Your task to perform on an android device: turn notification dots off Image 0: 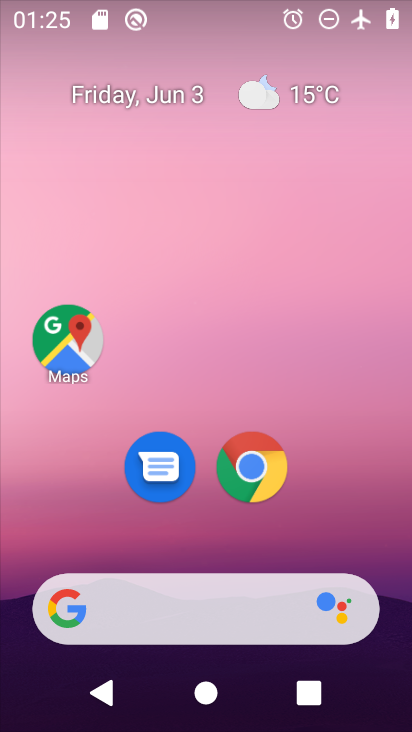
Step 0: drag from (399, 615) to (325, 85)
Your task to perform on an android device: turn notification dots off Image 1: 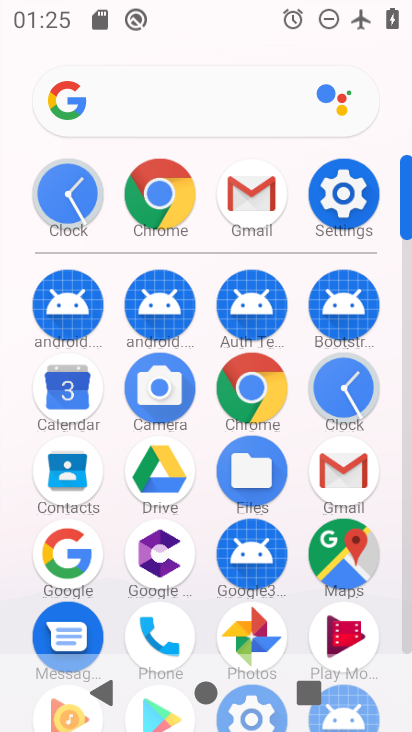
Step 1: click (408, 630)
Your task to perform on an android device: turn notification dots off Image 2: 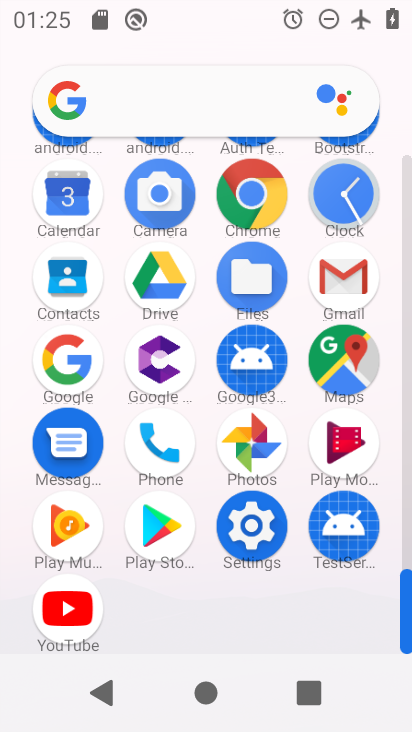
Step 2: click (250, 519)
Your task to perform on an android device: turn notification dots off Image 3: 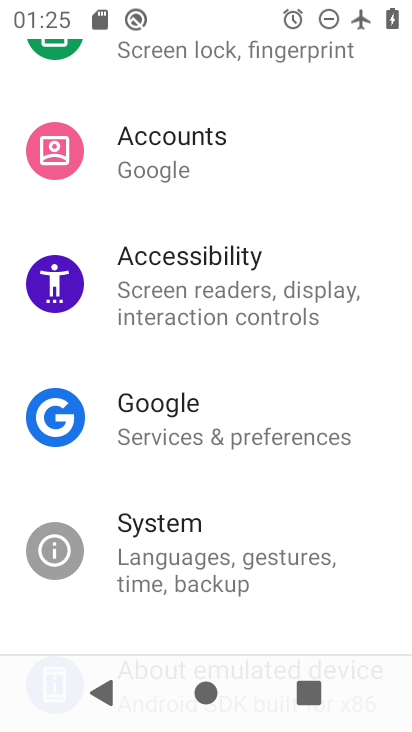
Step 3: drag from (362, 256) to (343, 493)
Your task to perform on an android device: turn notification dots off Image 4: 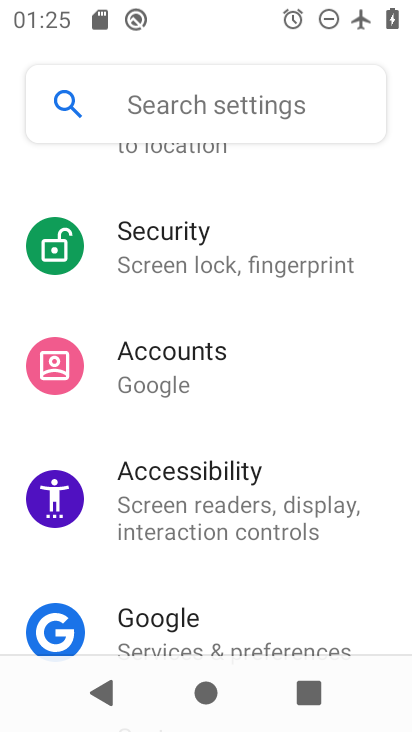
Step 4: drag from (364, 245) to (322, 510)
Your task to perform on an android device: turn notification dots off Image 5: 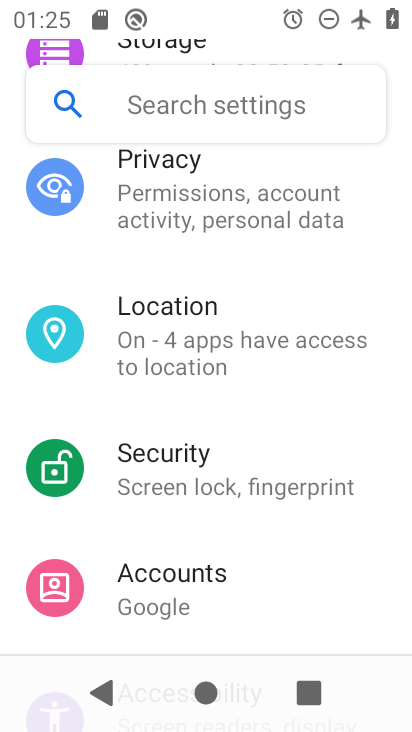
Step 5: drag from (361, 230) to (348, 521)
Your task to perform on an android device: turn notification dots off Image 6: 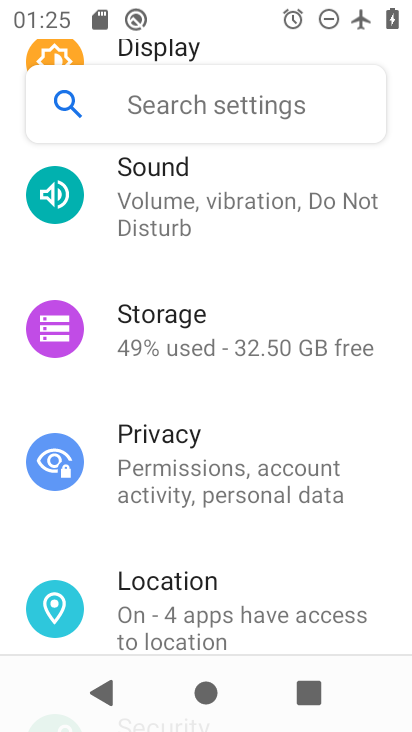
Step 6: drag from (358, 209) to (334, 392)
Your task to perform on an android device: turn notification dots off Image 7: 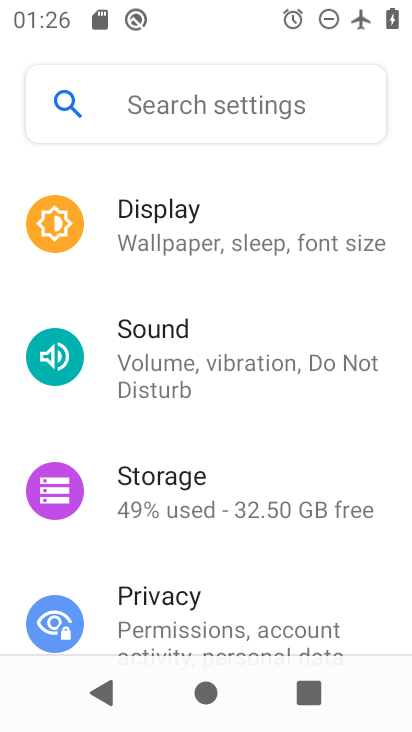
Step 7: drag from (325, 262) to (305, 541)
Your task to perform on an android device: turn notification dots off Image 8: 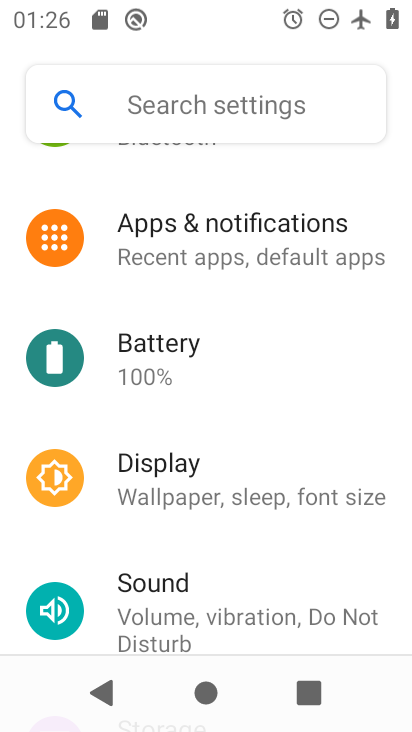
Step 8: click (145, 196)
Your task to perform on an android device: turn notification dots off Image 9: 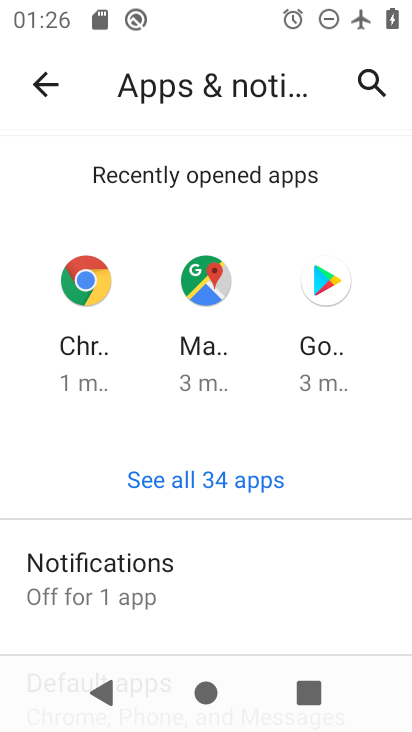
Step 9: drag from (227, 608) to (256, 173)
Your task to perform on an android device: turn notification dots off Image 10: 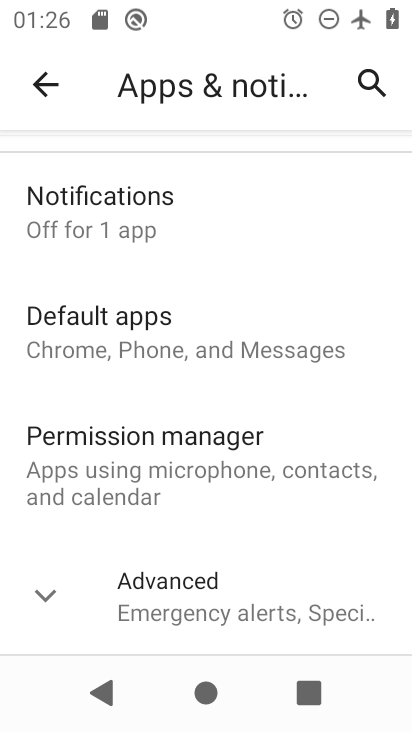
Step 10: click (92, 224)
Your task to perform on an android device: turn notification dots off Image 11: 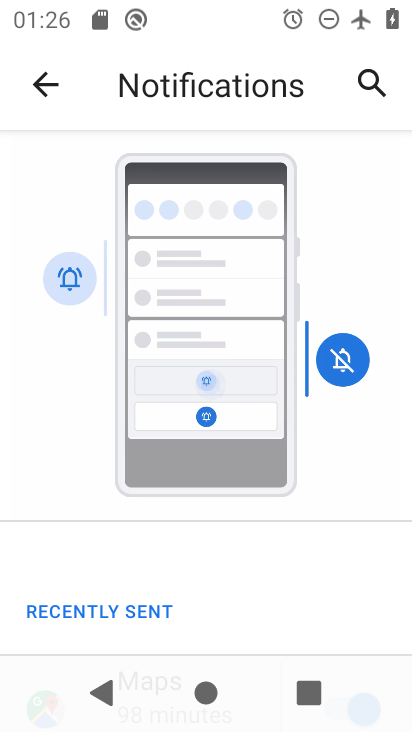
Step 11: drag from (261, 618) to (268, 214)
Your task to perform on an android device: turn notification dots off Image 12: 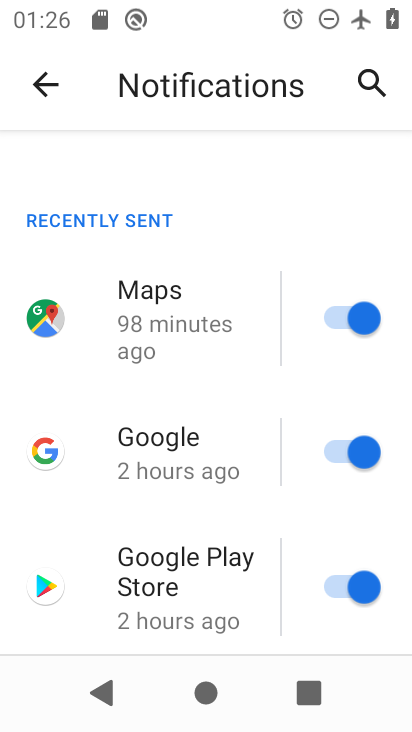
Step 12: drag from (275, 629) to (224, 128)
Your task to perform on an android device: turn notification dots off Image 13: 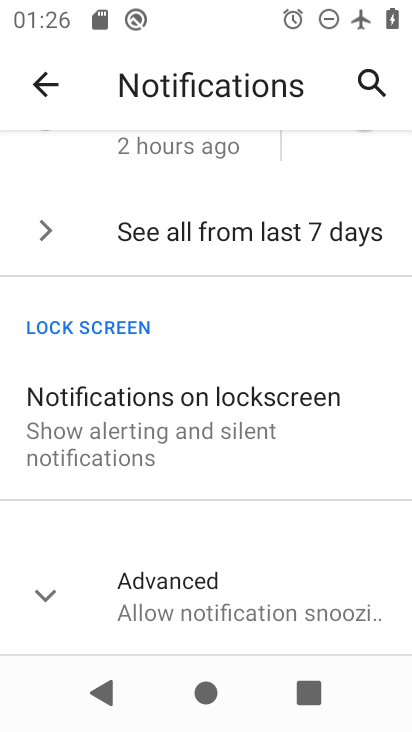
Step 13: drag from (260, 595) to (255, 348)
Your task to perform on an android device: turn notification dots off Image 14: 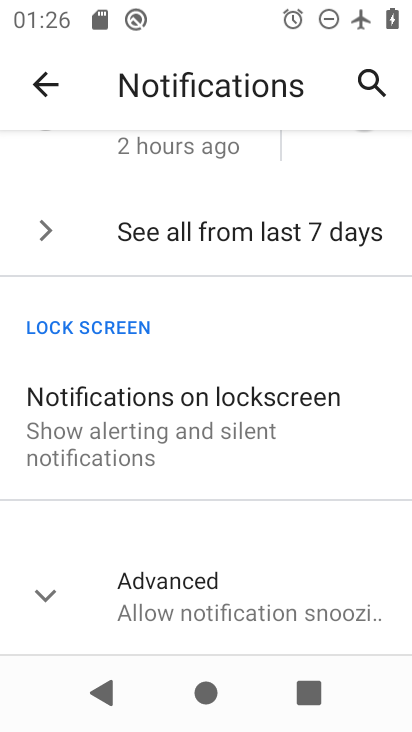
Step 14: click (49, 592)
Your task to perform on an android device: turn notification dots off Image 15: 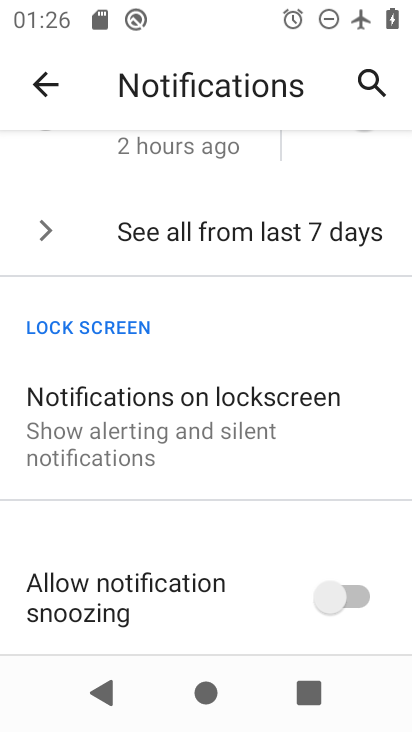
Step 15: drag from (263, 595) to (259, 159)
Your task to perform on an android device: turn notification dots off Image 16: 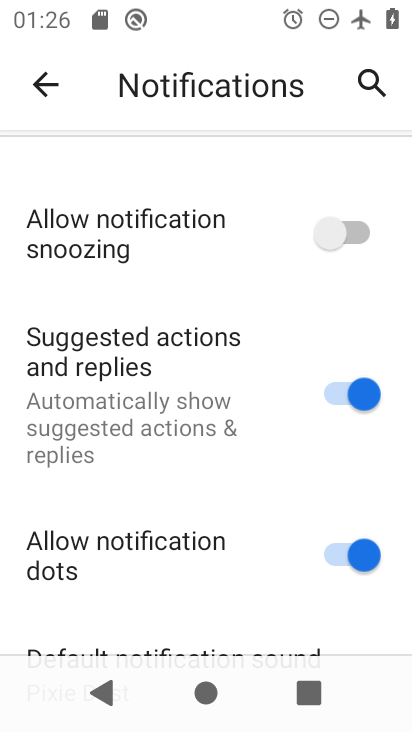
Step 16: click (330, 548)
Your task to perform on an android device: turn notification dots off Image 17: 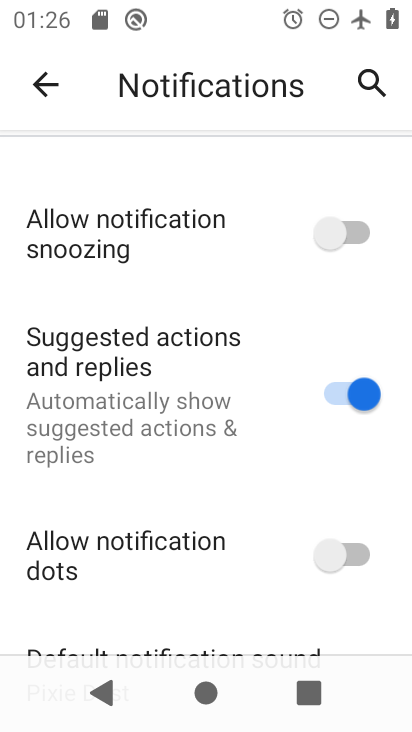
Step 17: task complete